Your task to perform on an android device: delete browsing data in the chrome app Image 0: 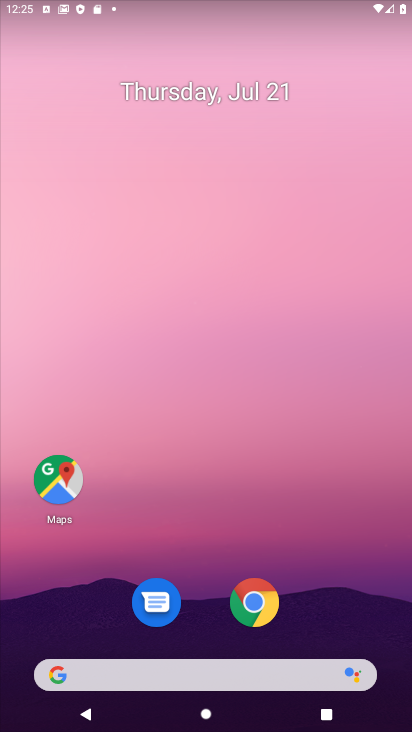
Step 0: drag from (386, 633) to (198, 22)
Your task to perform on an android device: delete browsing data in the chrome app Image 1: 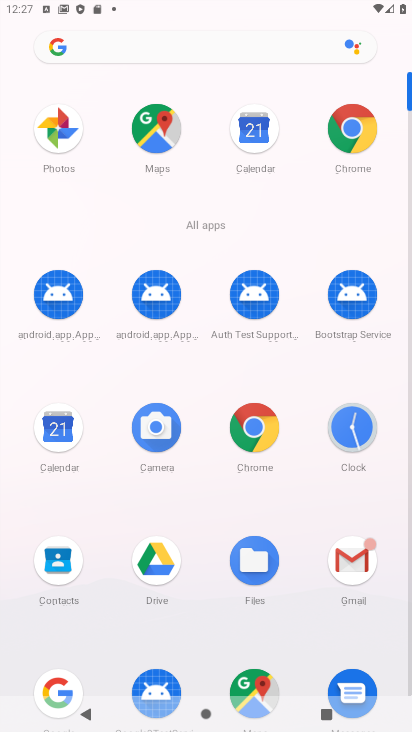
Step 1: click (236, 428)
Your task to perform on an android device: delete browsing data in the chrome app Image 2: 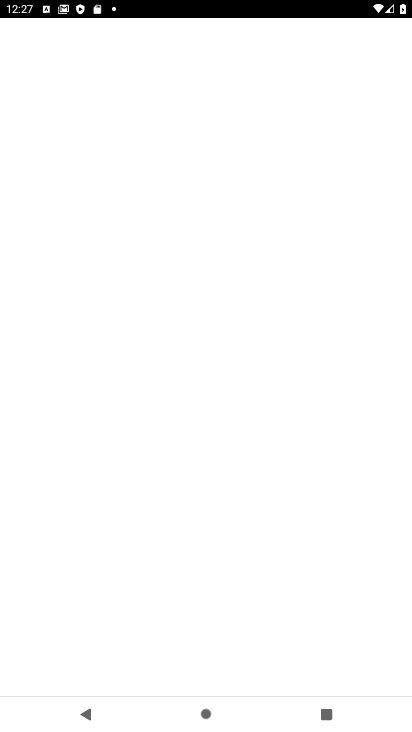
Step 2: click (236, 428)
Your task to perform on an android device: delete browsing data in the chrome app Image 3: 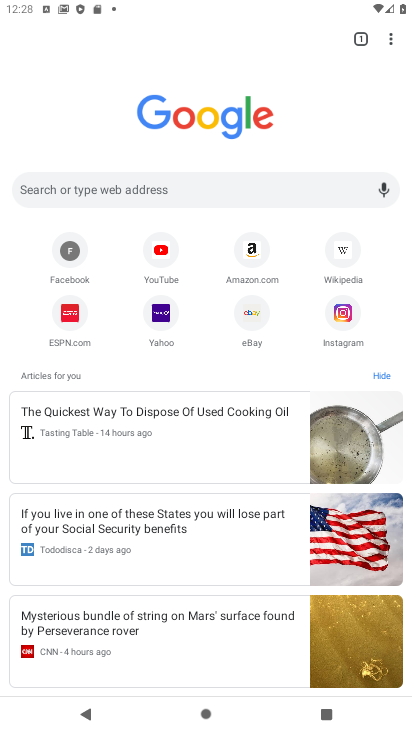
Step 3: click (391, 35)
Your task to perform on an android device: delete browsing data in the chrome app Image 4: 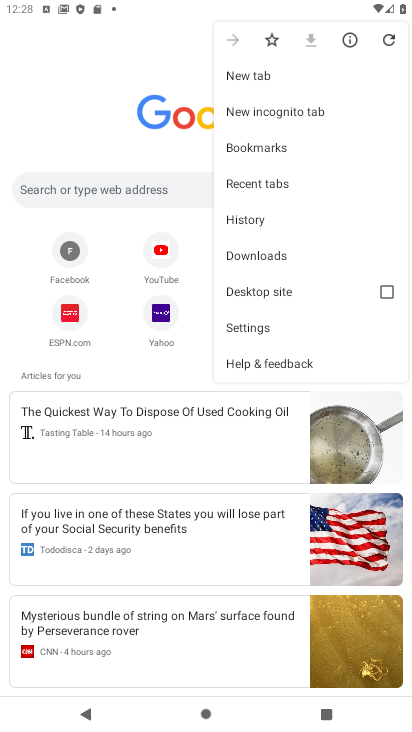
Step 4: click (250, 221)
Your task to perform on an android device: delete browsing data in the chrome app Image 5: 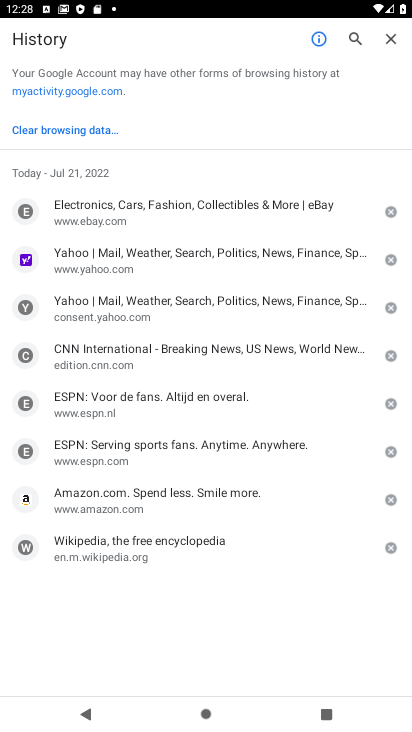
Step 5: click (61, 141)
Your task to perform on an android device: delete browsing data in the chrome app Image 6: 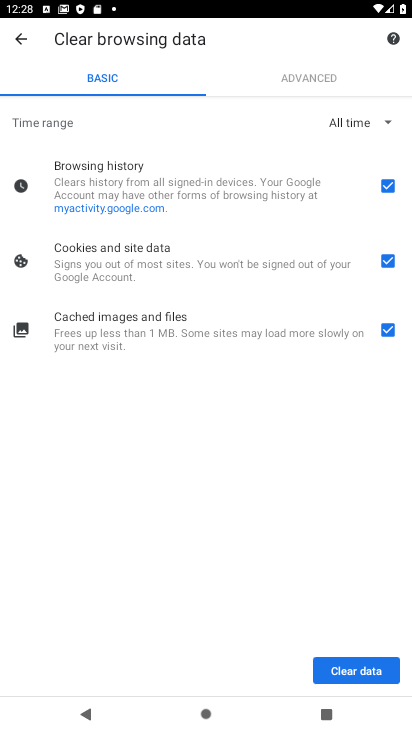
Step 6: click (372, 674)
Your task to perform on an android device: delete browsing data in the chrome app Image 7: 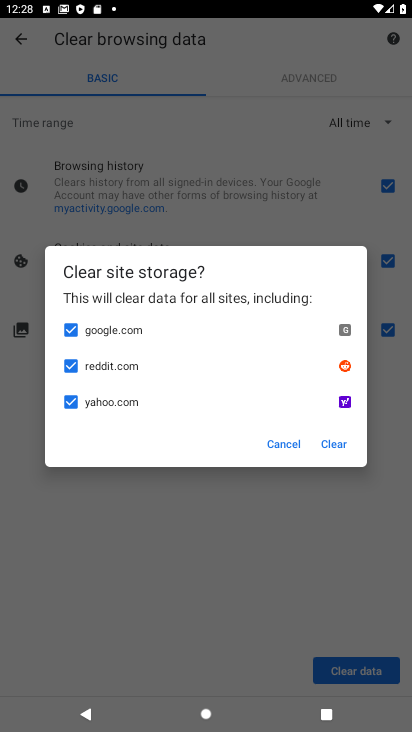
Step 7: click (317, 433)
Your task to perform on an android device: delete browsing data in the chrome app Image 8: 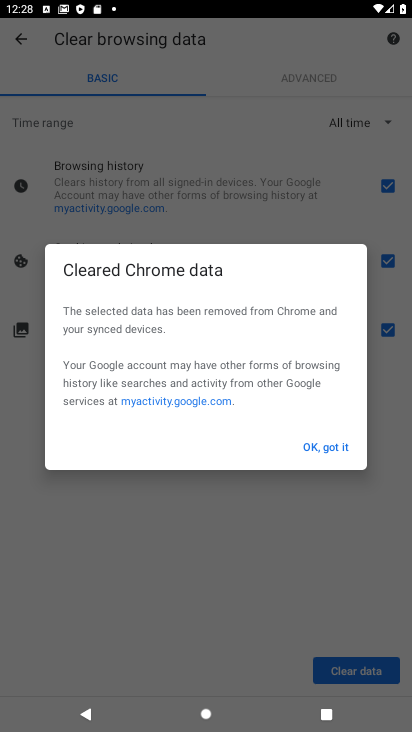
Step 8: click (340, 460)
Your task to perform on an android device: delete browsing data in the chrome app Image 9: 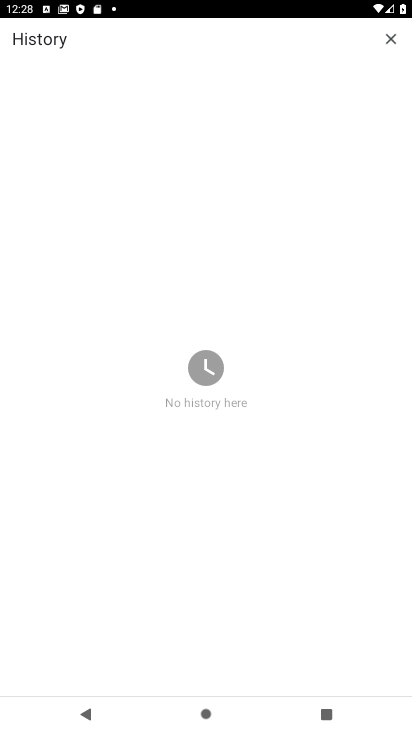
Step 9: task complete